Your task to perform on an android device: toggle translation in the chrome app Image 0: 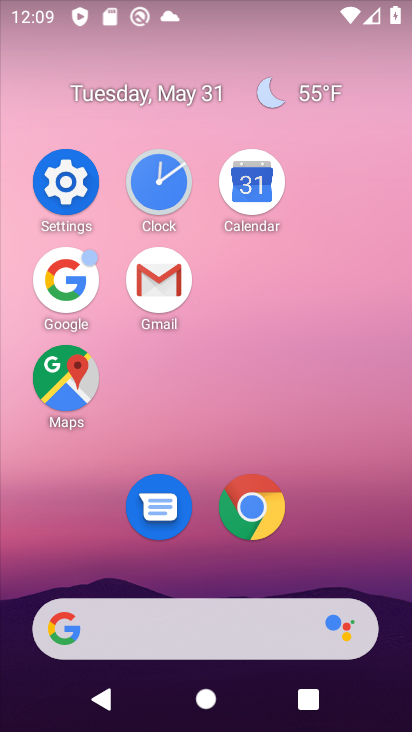
Step 0: click (263, 519)
Your task to perform on an android device: toggle translation in the chrome app Image 1: 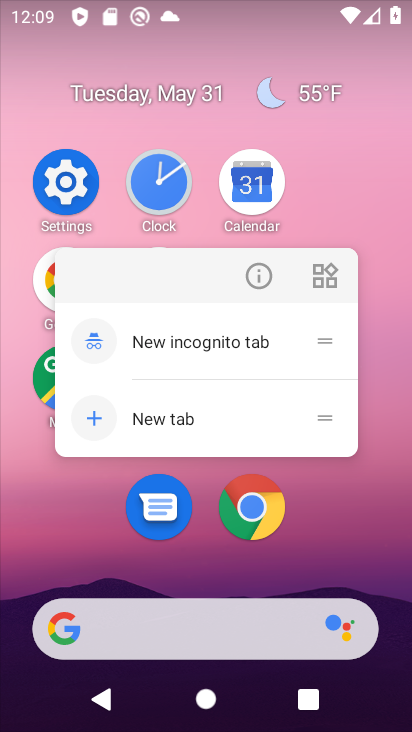
Step 1: click (234, 511)
Your task to perform on an android device: toggle translation in the chrome app Image 2: 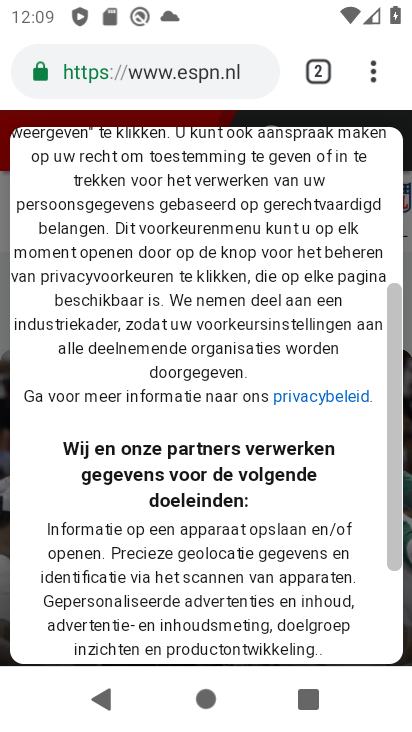
Step 2: click (374, 66)
Your task to perform on an android device: toggle translation in the chrome app Image 3: 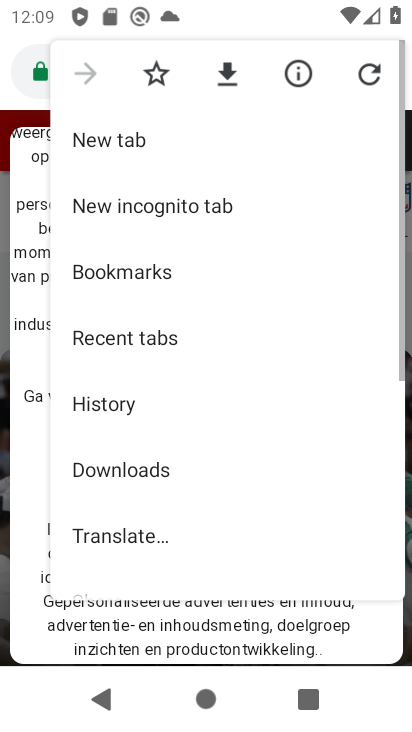
Step 3: drag from (246, 490) to (248, 149)
Your task to perform on an android device: toggle translation in the chrome app Image 4: 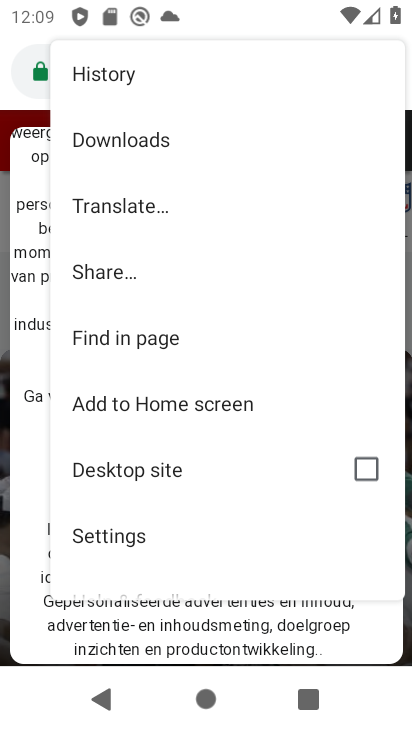
Step 4: click (118, 525)
Your task to perform on an android device: toggle translation in the chrome app Image 5: 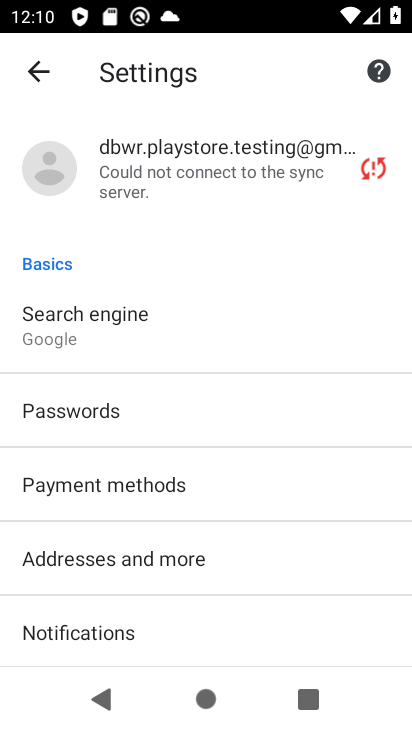
Step 5: drag from (306, 446) to (345, 217)
Your task to perform on an android device: toggle translation in the chrome app Image 6: 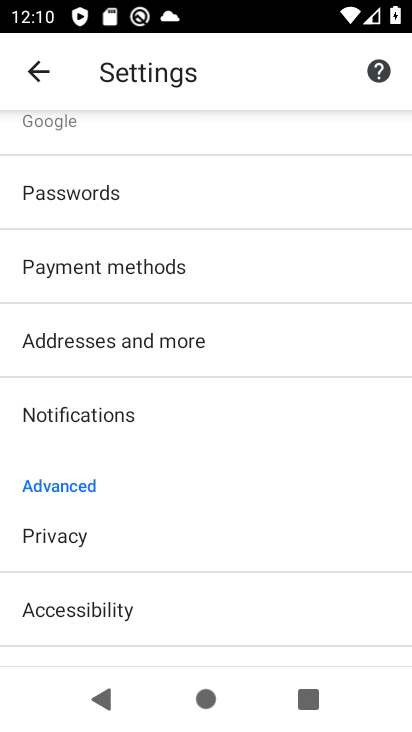
Step 6: drag from (186, 548) to (219, 160)
Your task to perform on an android device: toggle translation in the chrome app Image 7: 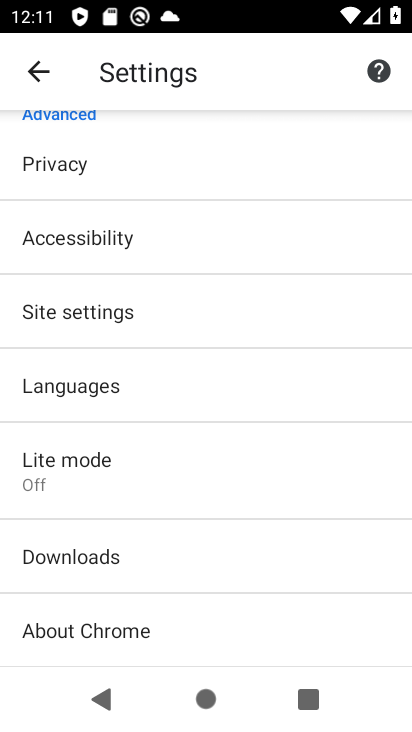
Step 7: click (138, 396)
Your task to perform on an android device: toggle translation in the chrome app Image 8: 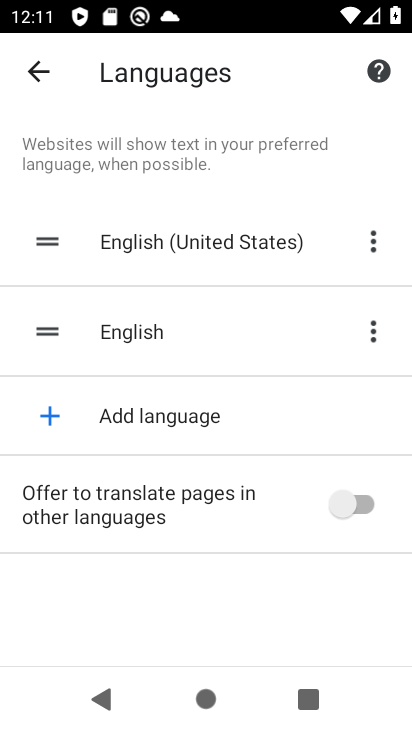
Step 8: click (354, 508)
Your task to perform on an android device: toggle translation in the chrome app Image 9: 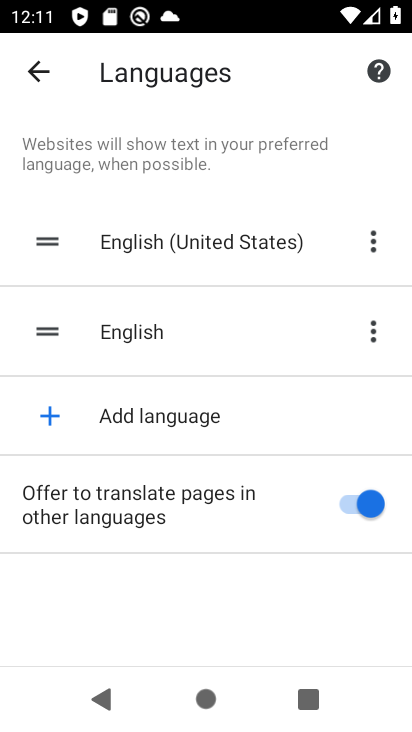
Step 9: task complete